Your task to perform on an android device: add a contact in the contacts app Image 0: 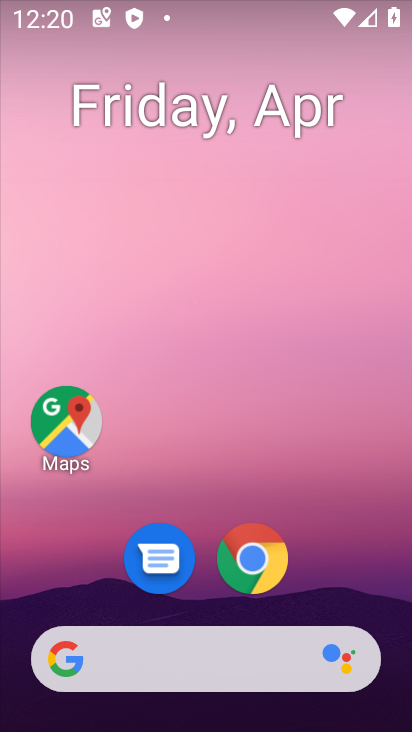
Step 0: drag from (355, 482) to (187, 10)
Your task to perform on an android device: add a contact in the contacts app Image 1: 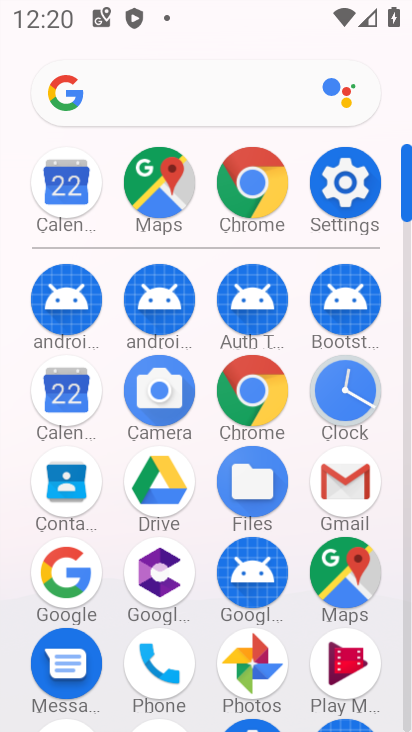
Step 1: click (68, 495)
Your task to perform on an android device: add a contact in the contacts app Image 2: 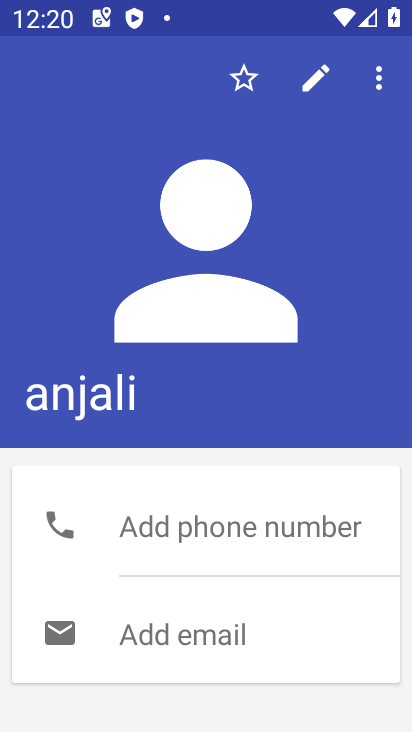
Step 2: press back button
Your task to perform on an android device: add a contact in the contacts app Image 3: 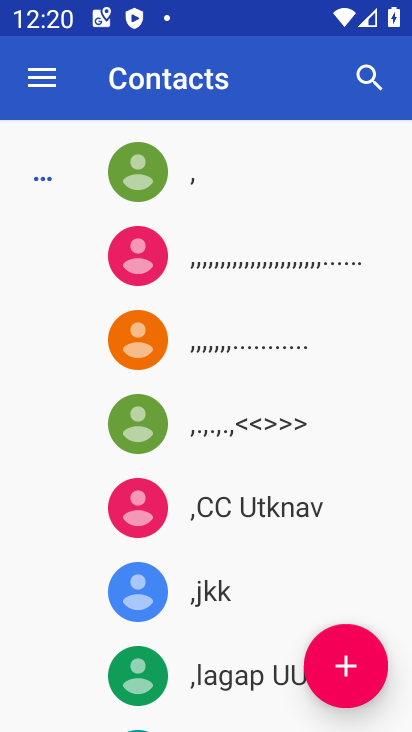
Step 3: click (363, 662)
Your task to perform on an android device: add a contact in the contacts app Image 4: 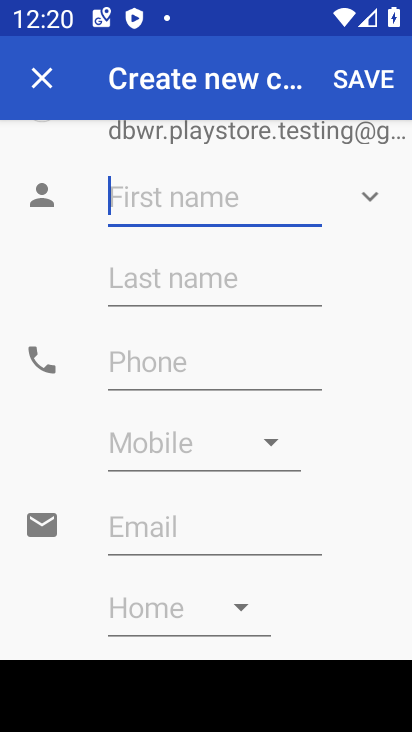
Step 4: type "joel"
Your task to perform on an android device: add a contact in the contacts app Image 5: 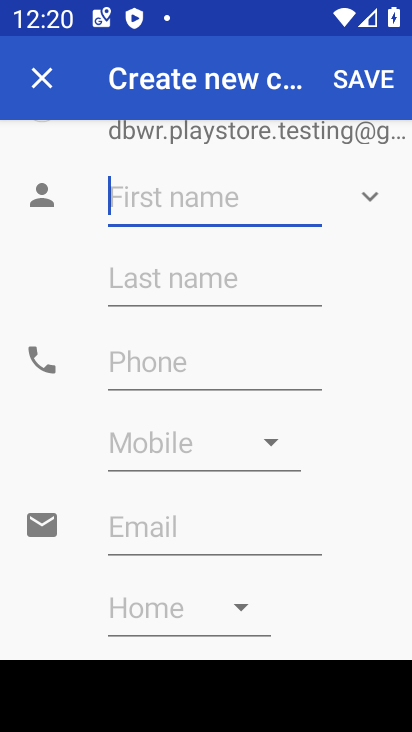
Step 5: click (363, 94)
Your task to perform on an android device: add a contact in the contacts app Image 6: 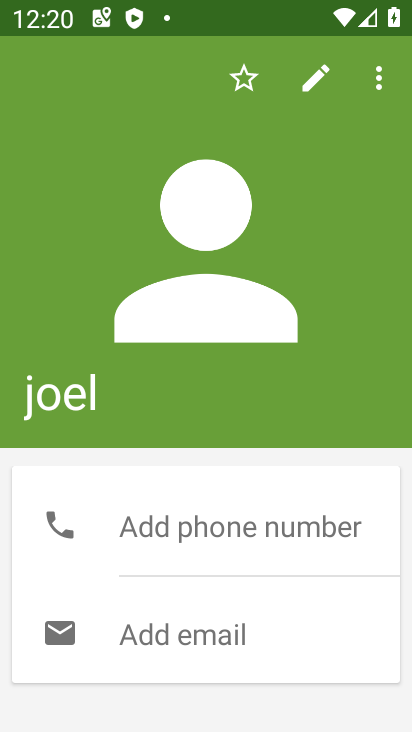
Step 6: task complete